Your task to perform on an android device: Go to calendar. Show me events next week Image 0: 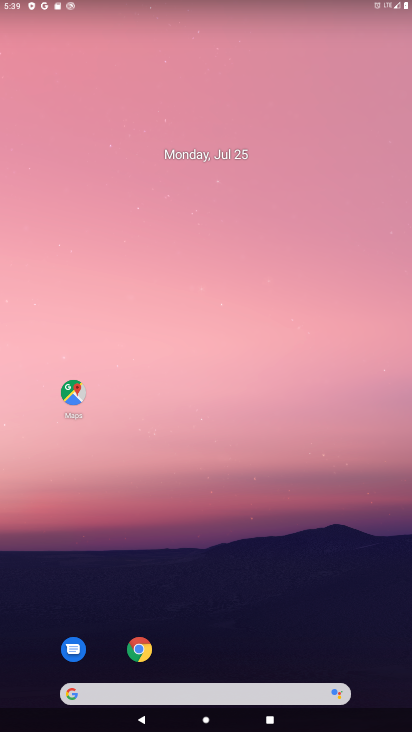
Step 0: drag from (185, 687) to (301, 30)
Your task to perform on an android device: Go to calendar. Show me events next week Image 1: 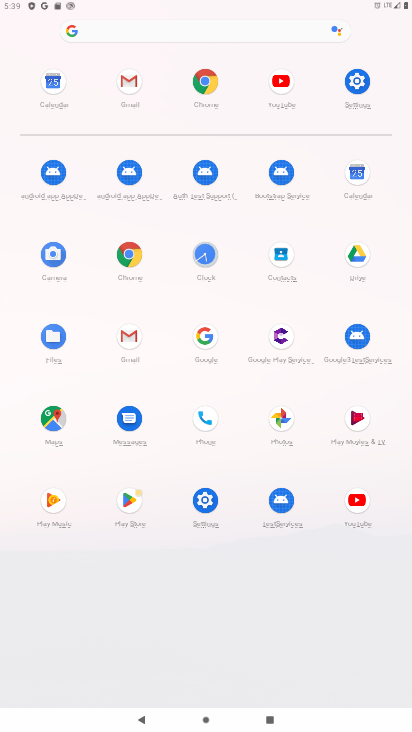
Step 1: click (359, 166)
Your task to perform on an android device: Go to calendar. Show me events next week Image 2: 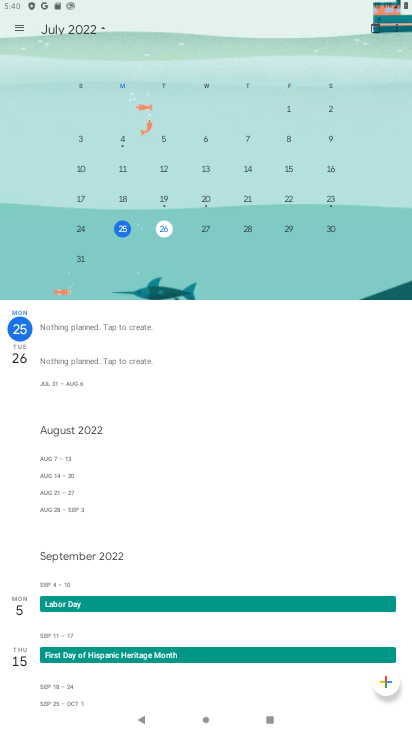
Step 2: click (99, 25)
Your task to perform on an android device: Go to calendar. Show me events next week Image 3: 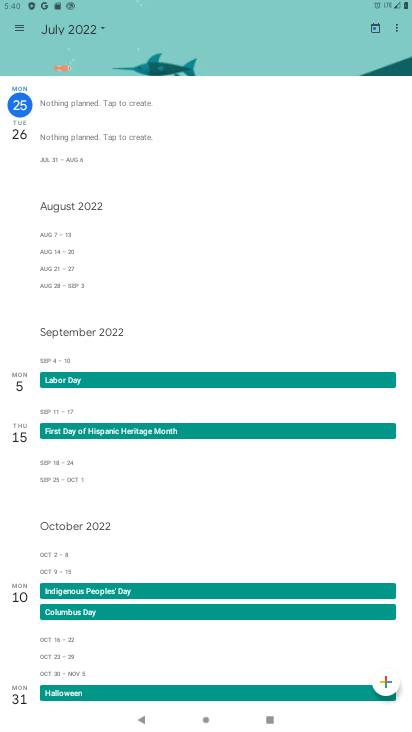
Step 3: click (109, 32)
Your task to perform on an android device: Go to calendar. Show me events next week Image 4: 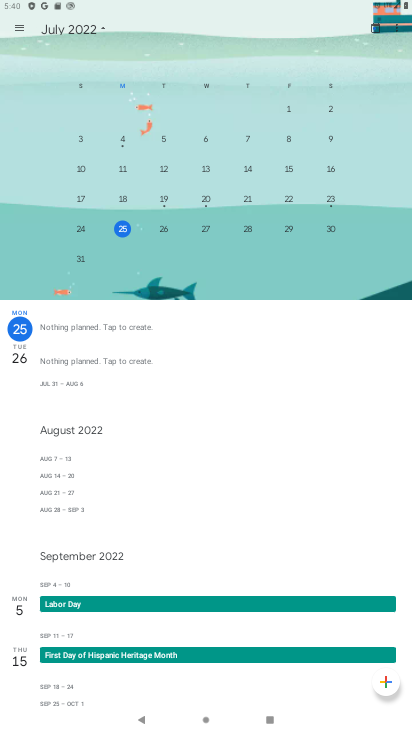
Step 4: click (289, 200)
Your task to perform on an android device: Go to calendar. Show me events next week Image 5: 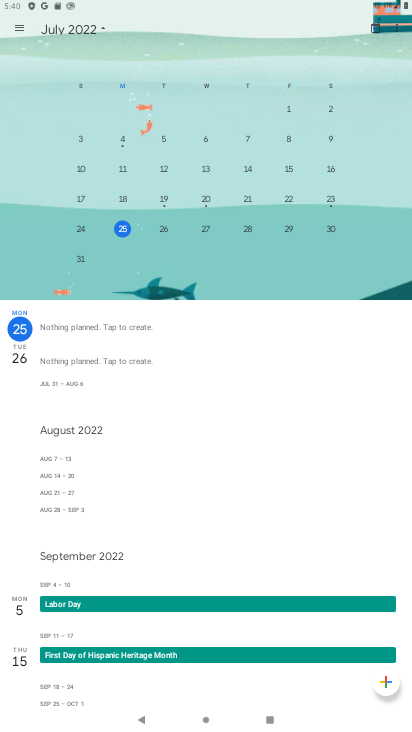
Step 5: drag from (273, 208) to (59, 189)
Your task to perform on an android device: Go to calendar. Show me events next week Image 6: 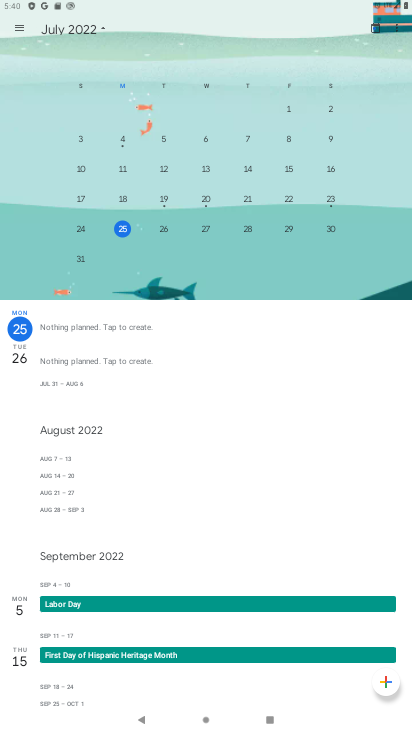
Step 6: drag from (332, 202) to (77, 188)
Your task to perform on an android device: Go to calendar. Show me events next week Image 7: 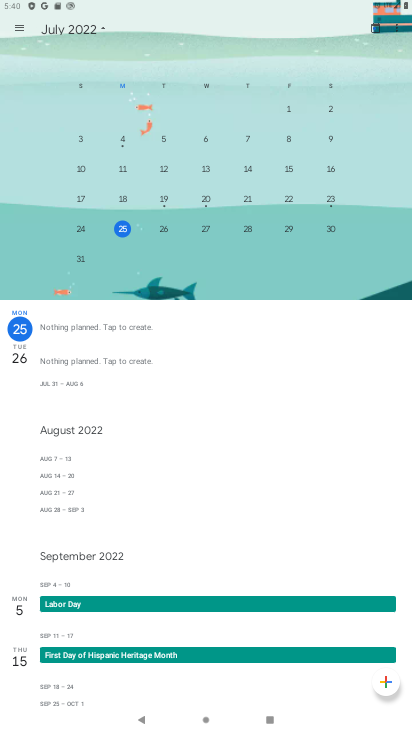
Step 7: drag from (328, 148) to (4, 535)
Your task to perform on an android device: Go to calendar. Show me events next week Image 8: 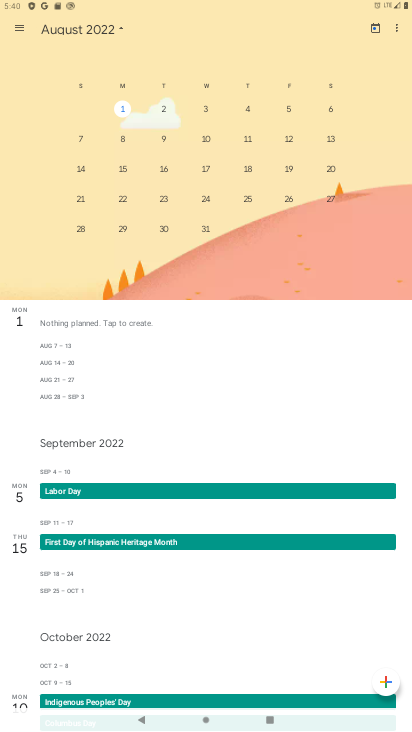
Step 8: click (317, 103)
Your task to perform on an android device: Go to calendar. Show me events next week Image 9: 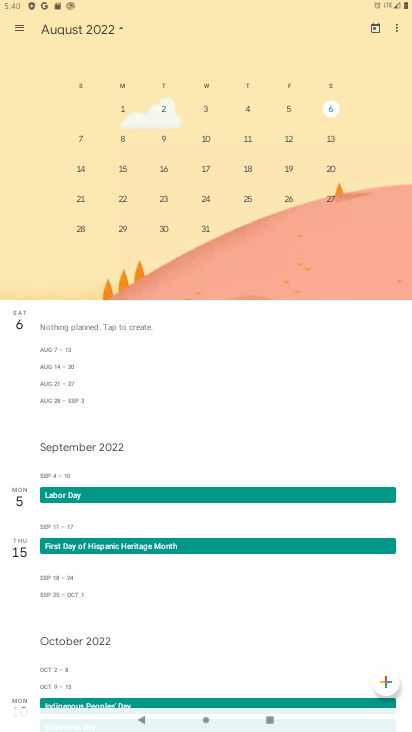
Step 9: task complete